Your task to perform on an android device: search for starred emails in the gmail app Image 0: 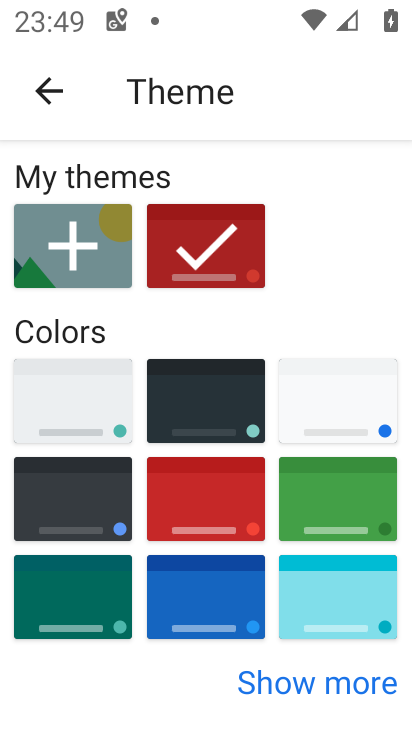
Step 0: press home button
Your task to perform on an android device: search for starred emails in the gmail app Image 1: 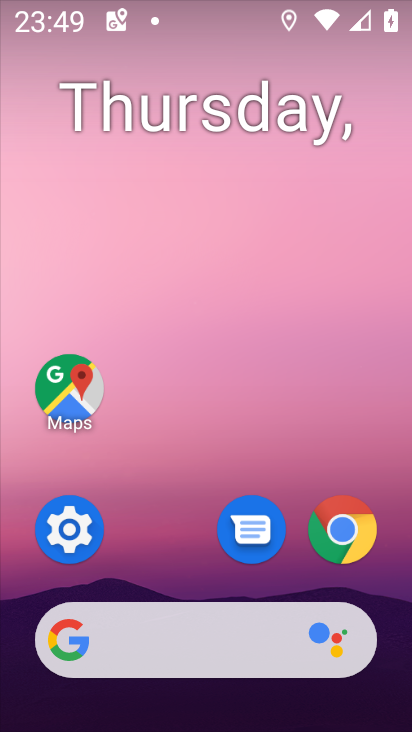
Step 1: drag from (192, 720) to (222, 124)
Your task to perform on an android device: search for starred emails in the gmail app Image 2: 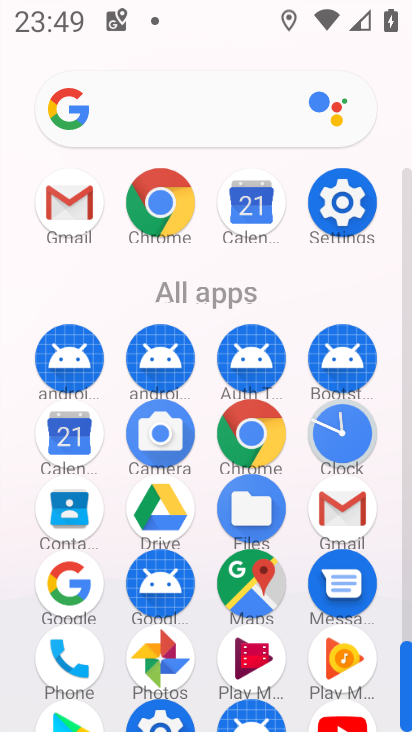
Step 2: click (73, 210)
Your task to perform on an android device: search for starred emails in the gmail app Image 3: 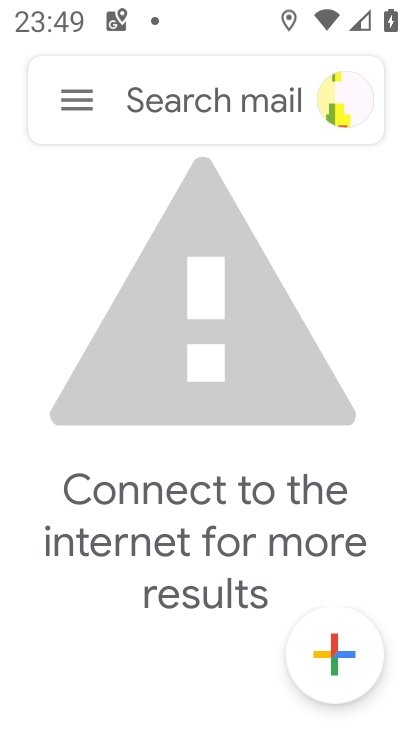
Step 3: click (75, 96)
Your task to perform on an android device: search for starred emails in the gmail app Image 4: 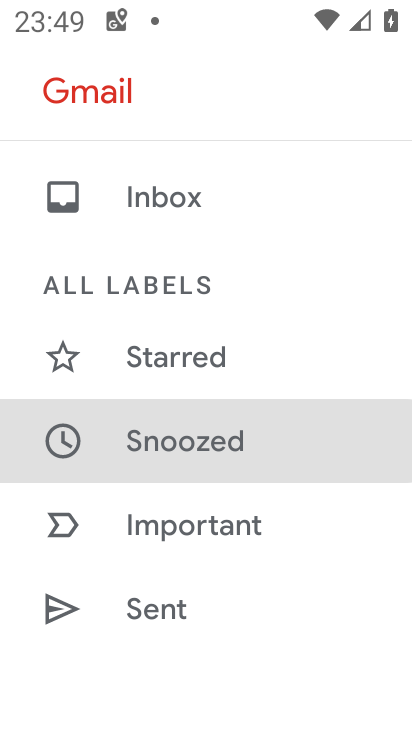
Step 4: click (176, 350)
Your task to perform on an android device: search for starred emails in the gmail app Image 5: 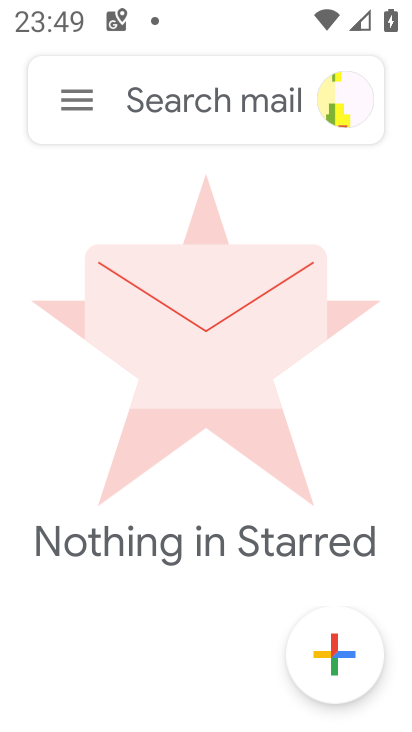
Step 5: task complete